Your task to perform on an android device: install app "Pinterest" Image 0: 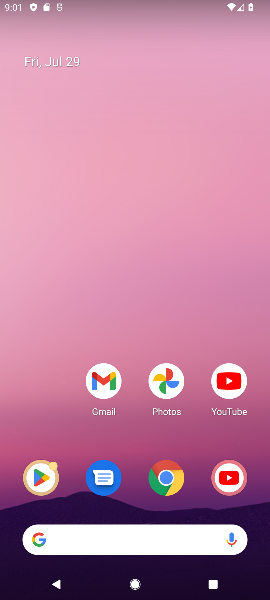
Step 0: click (45, 485)
Your task to perform on an android device: install app "Pinterest" Image 1: 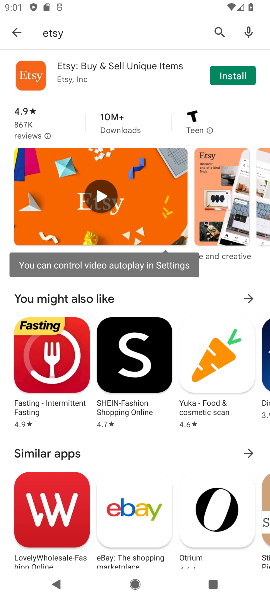
Step 1: click (227, 31)
Your task to perform on an android device: install app "Pinterest" Image 2: 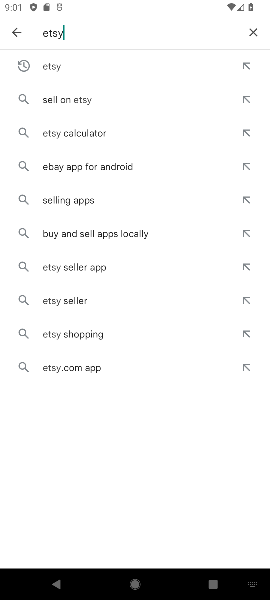
Step 2: click (252, 32)
Your task to perform on an android device: install app "Pinterest" Image 3: 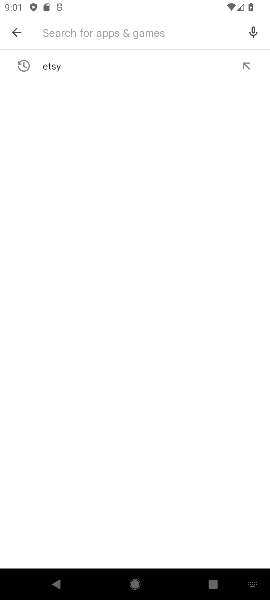
Step 3: type "pinter"
Your task to perform on an android device: install app "Pinterest" Image 4: 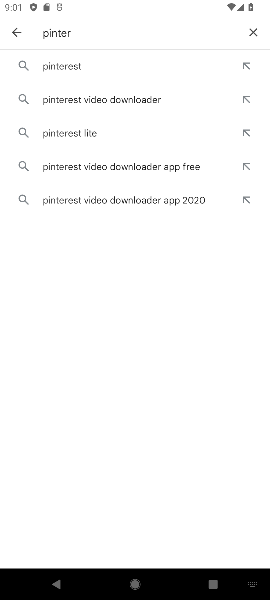
Step 4: click (45, 53)
Your task to perform on an android device: install app "Pinterest" Image 5: 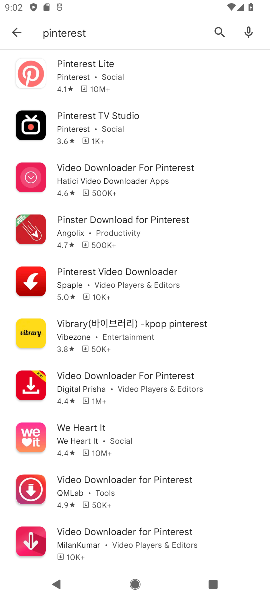
Step 5: click (128, 66)
Your task to perform on an android device: install app "Pinterest" Image 6: 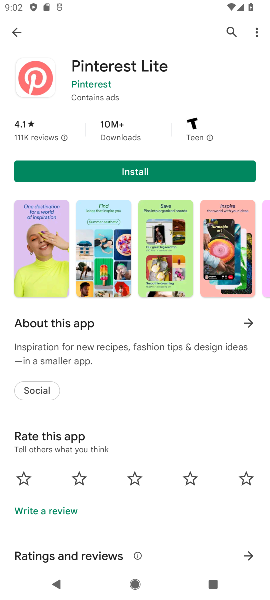
Step 6: click (135, 169)
Your task to perform on an android device: install app "Pinterest" Image 7: 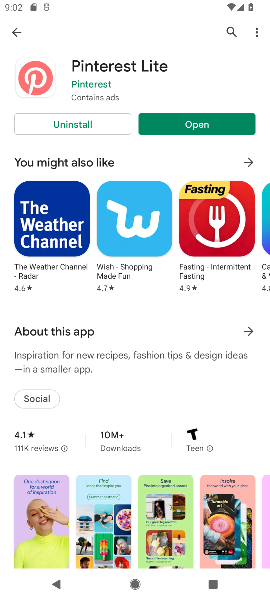
Step 7: click (186, 123)
Your task to perform on an android device: install app "Pinterest" Image 8: 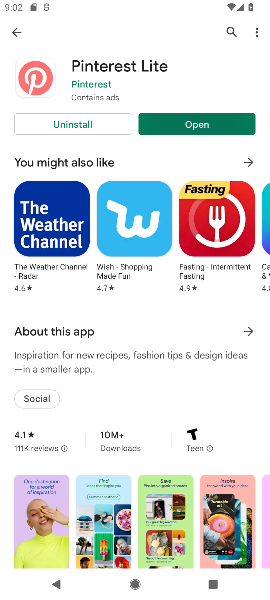
Step 8: task complete